Your task to perform on an android device: Open display settings Image 0: 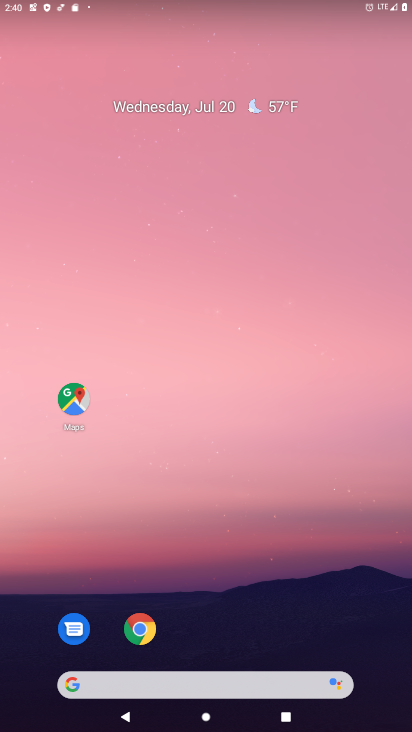
Step 0: drag from (382, 662) to (364, 84)
Your task to perform on an android device: Open display settings Image 1: 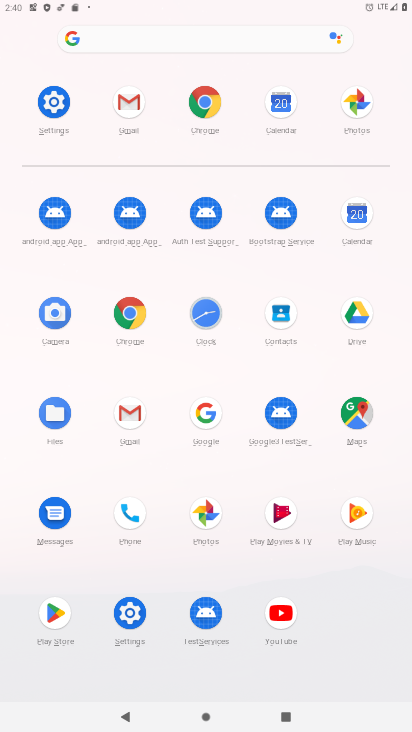
Step 1: click (129, 614)
Your task to perform on an android device: Open display settings Image 2: 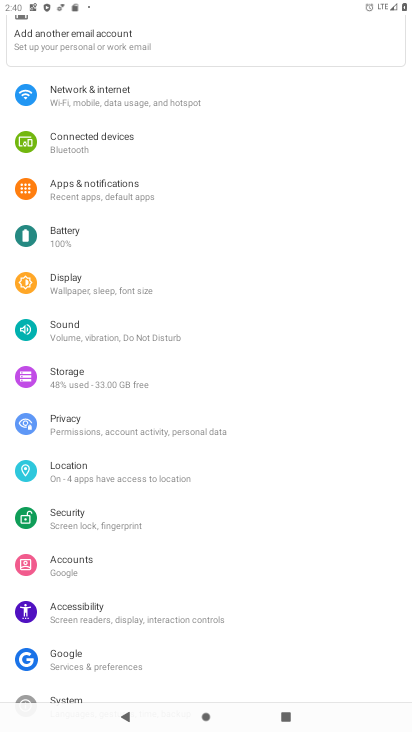
Step 2: click (71, 281)
Your task to perform on an android device: Open display settings Image 3: 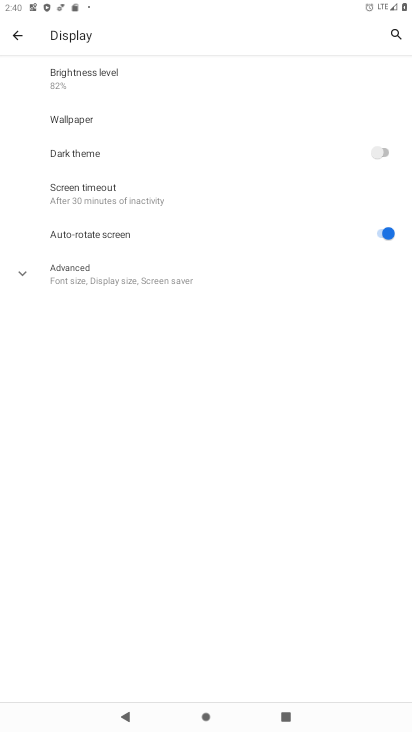
Step 3: click (16, 273)
Your task to perform on an android device: Open display settings Image 4: 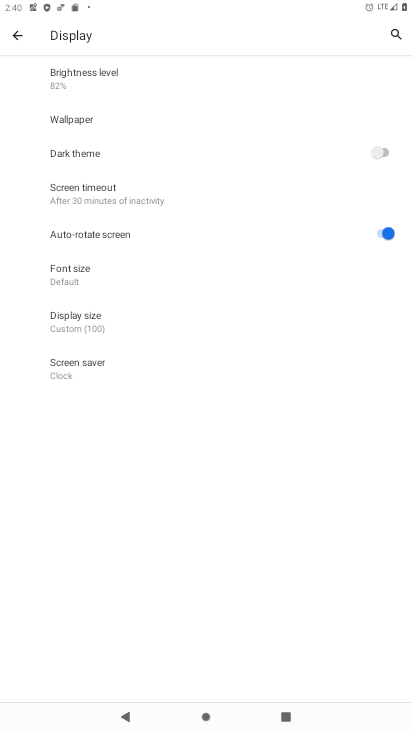
Step 4: task complete